Your task to perform on an android device: Open maps Image 0: 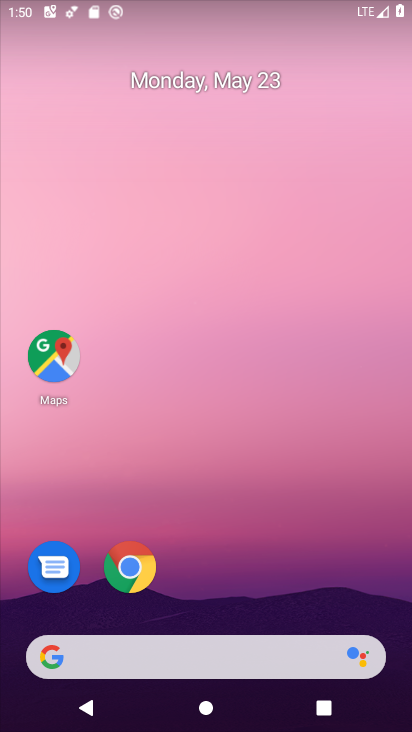
Step 0: drag from (269, 603) to (225, 241)
Your task to perform on an android device: Open maps Image 1: 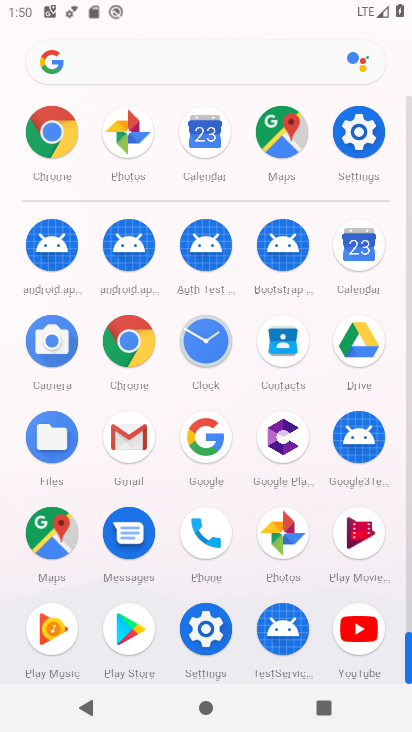
Step 1: click (35, 527)
Your task to perform on an android device: Open maps Image 2: 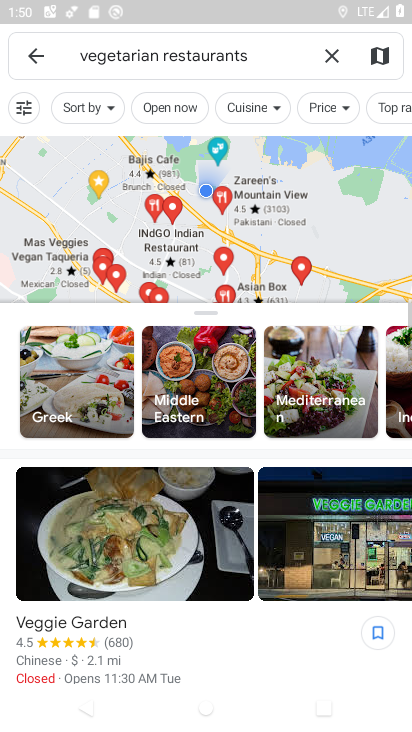
Step 2: task complete